Your task to perform on an android device: install app "Spotify" Image 0: 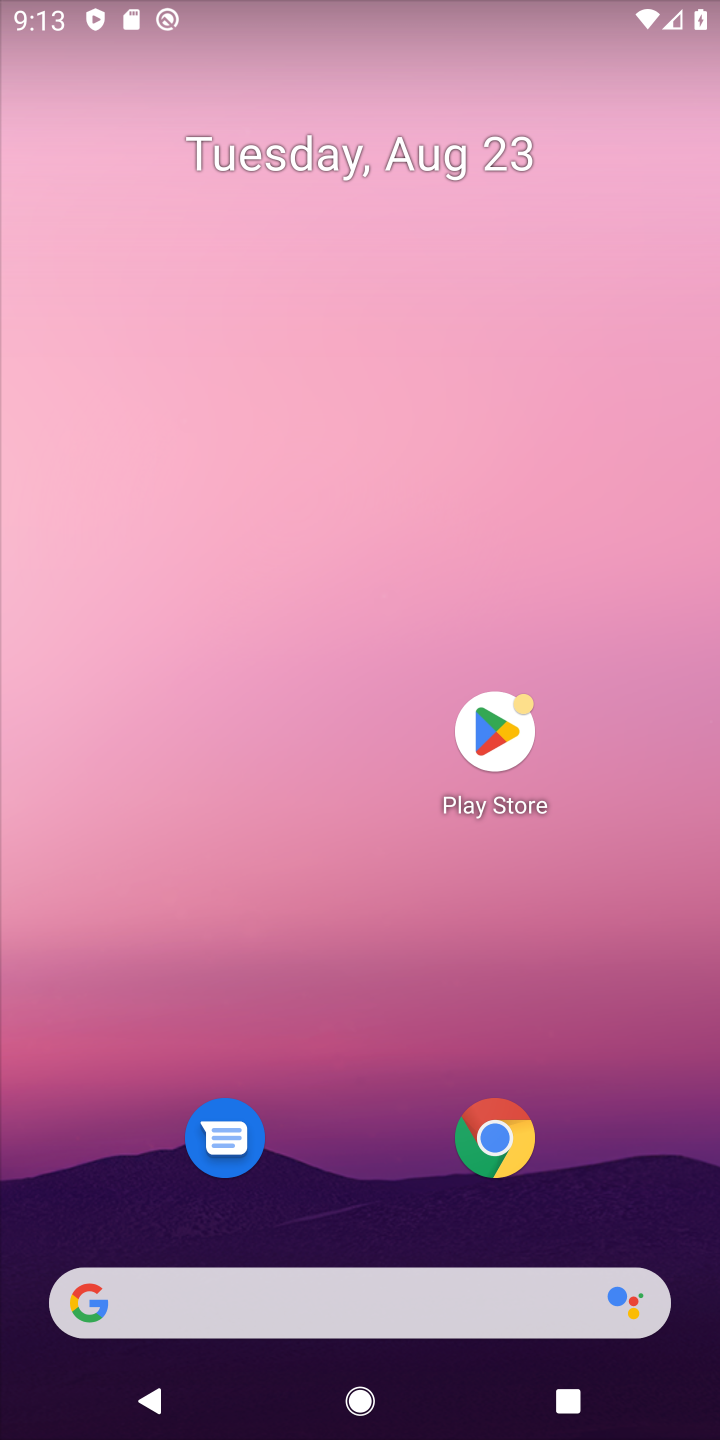
Step 0: press home button
Your task to perform on an android device: install app "Spotify" Image 1: 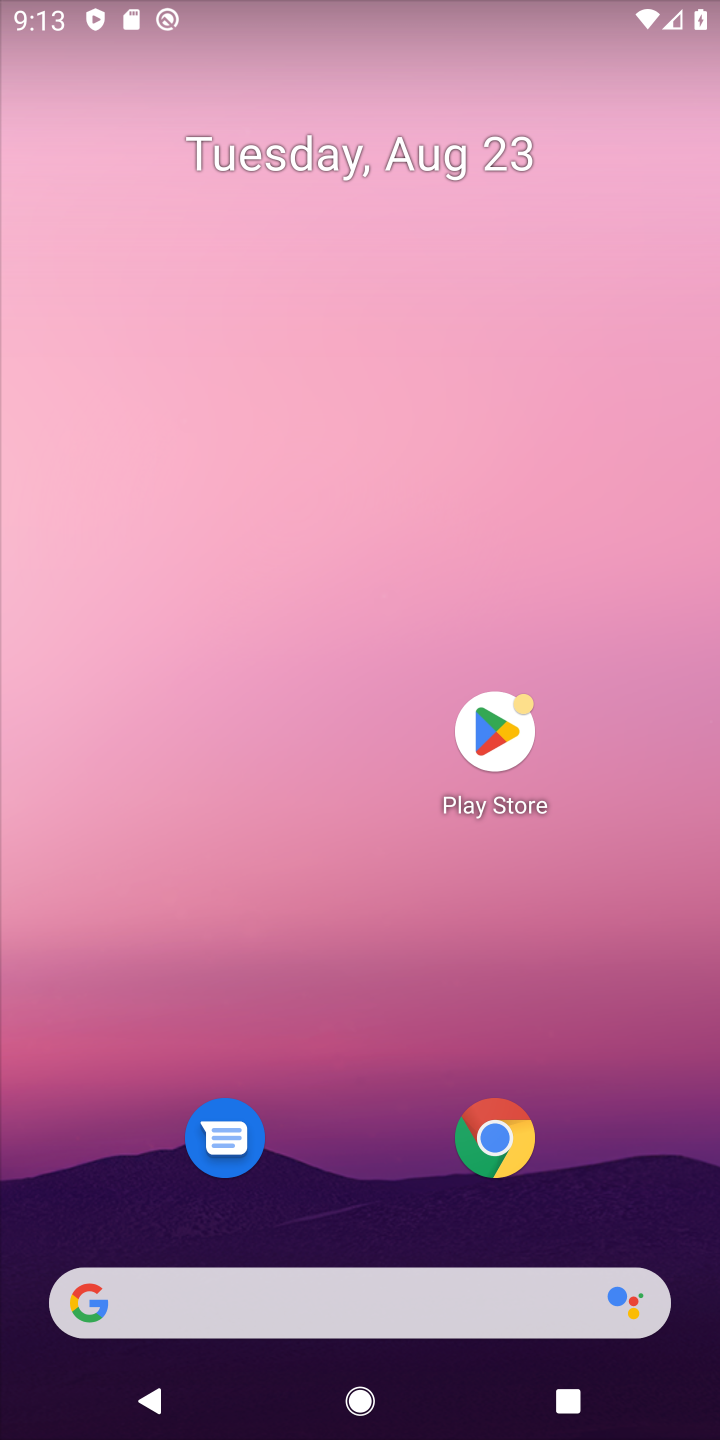
Step 1: click (493, 737)
Your task to perform on an android device: install app "Spotify" Image 2: 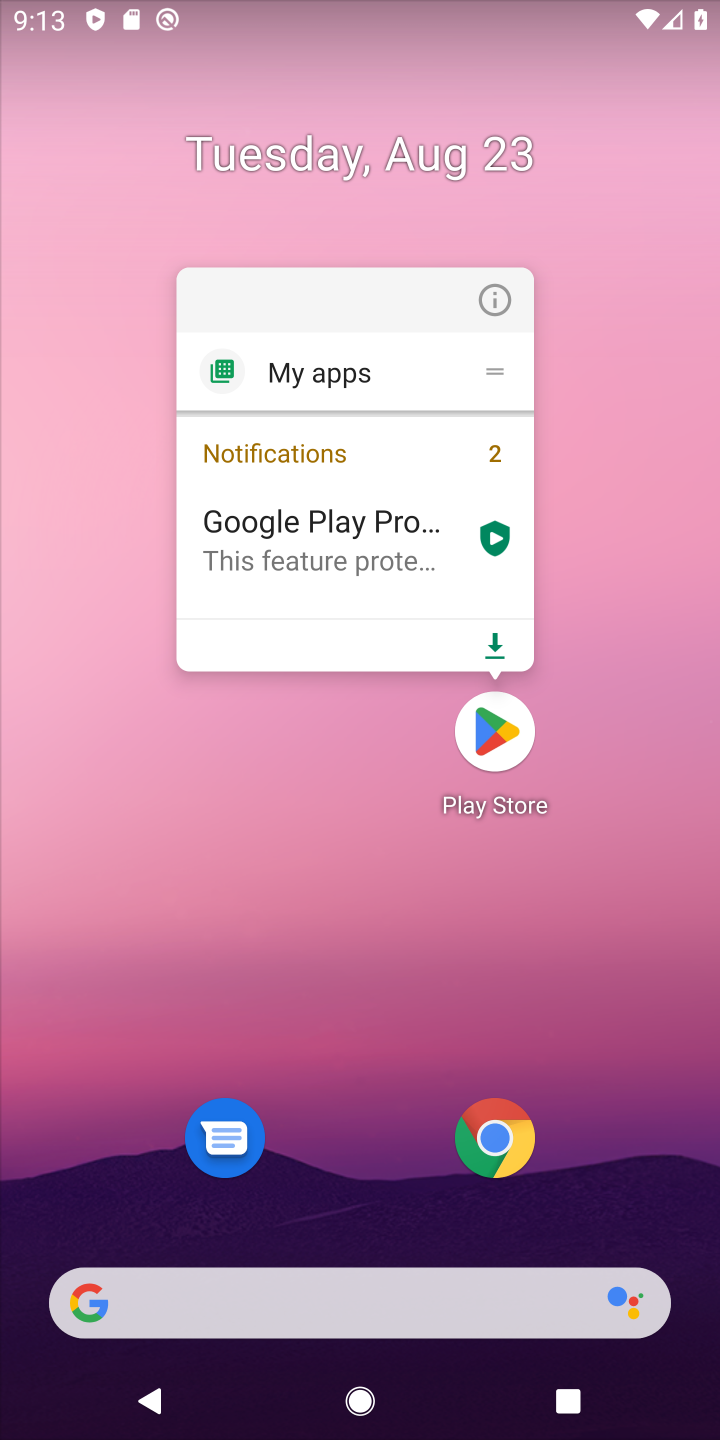
Step 2: click (493, 738)
Your task to perform on an android device: install app "Spotify" Image 3: 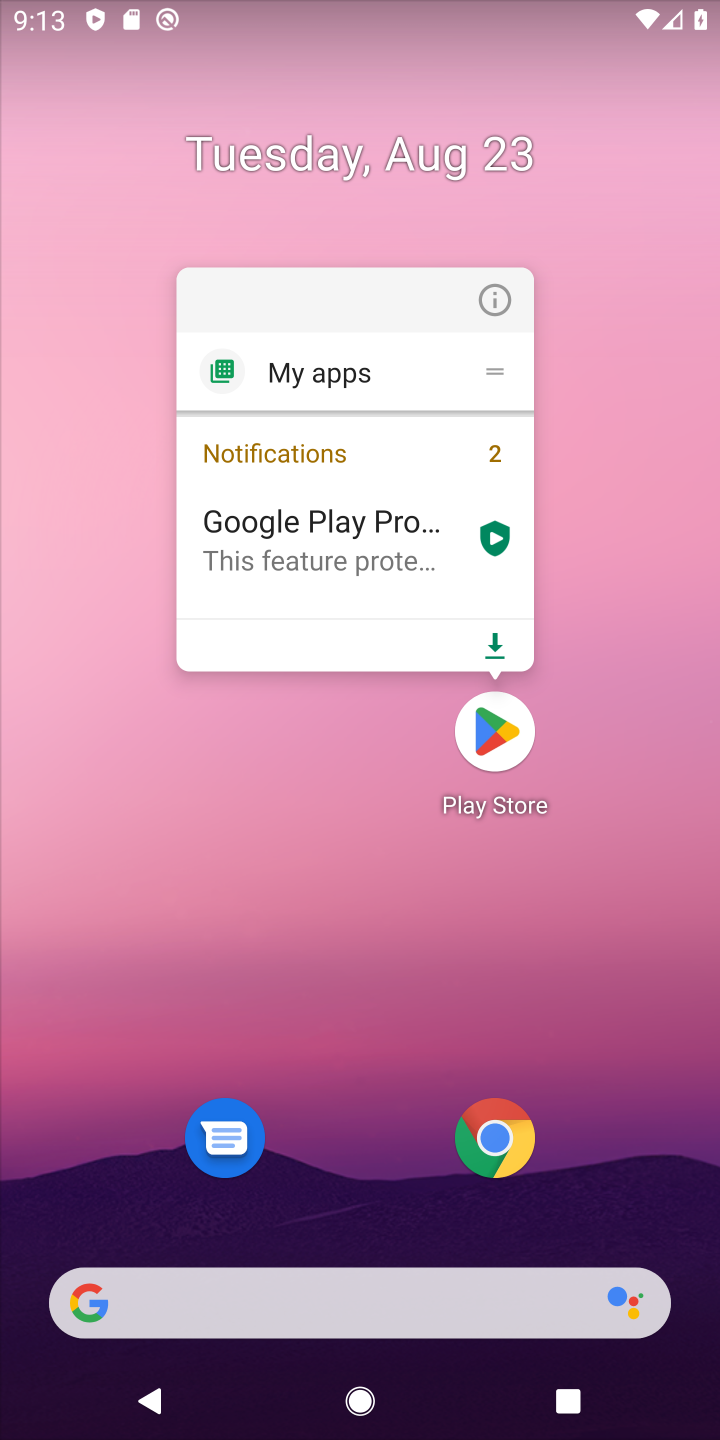
Step 3: click (493, 745)
Your task to perform on an android device: install app "Spotify" Image 4: 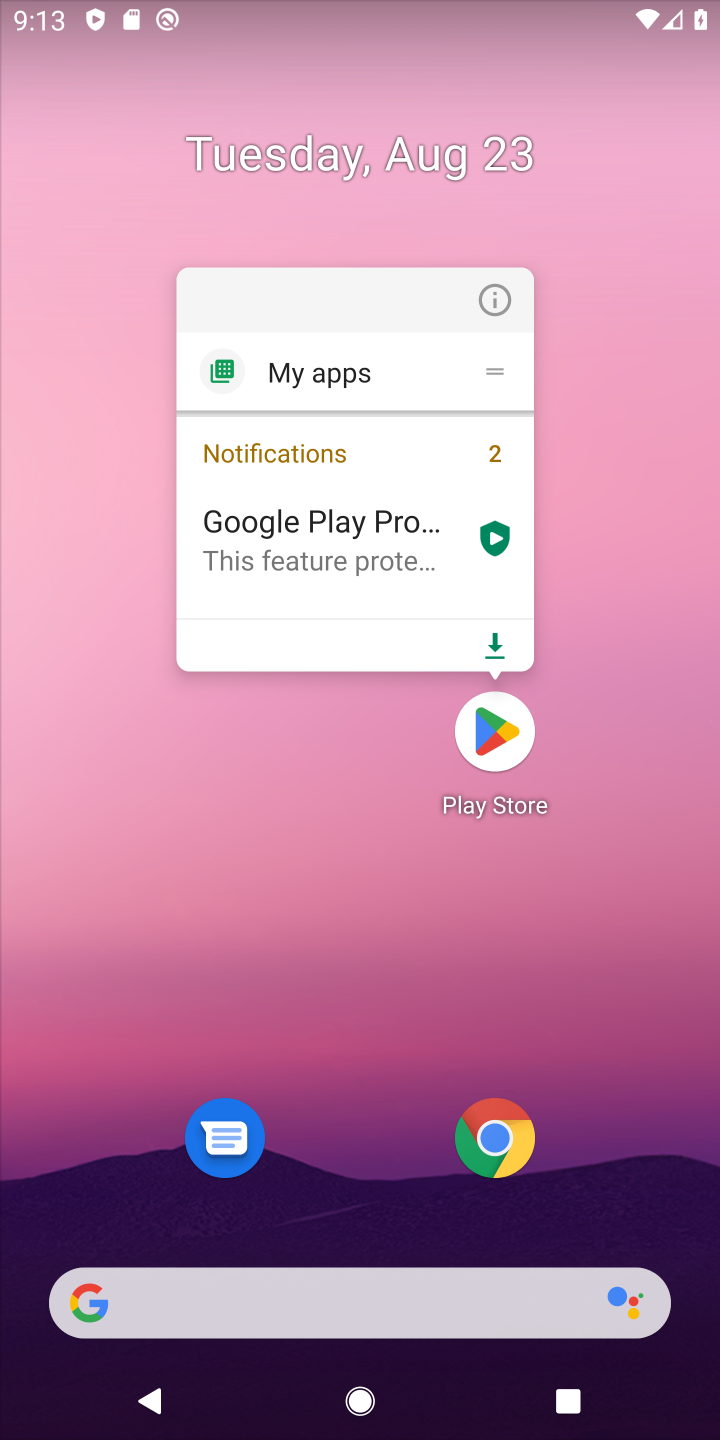
Step 4: click (493, 747)
Your task to perform on an android device: install app "Spotify" Image 5: 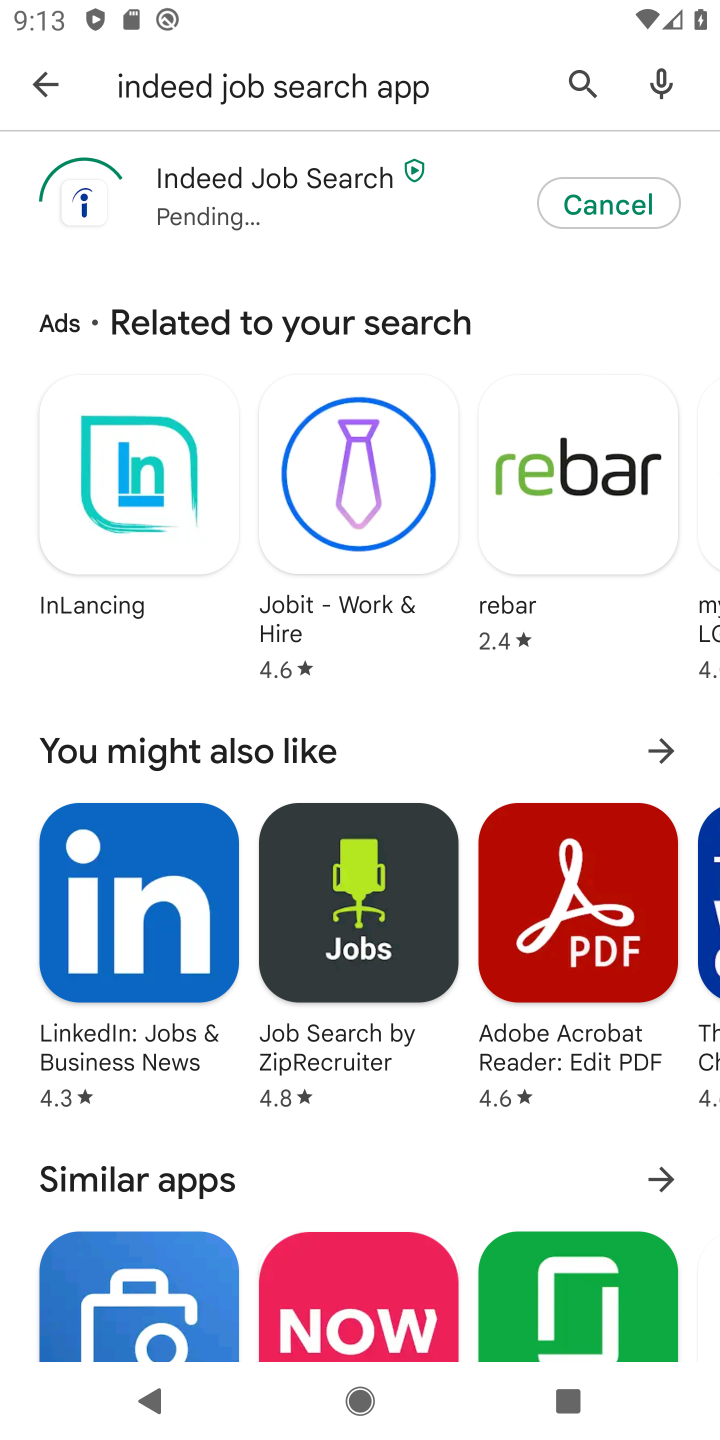
Step 5: click (595, 61)
Your task to perform on an android device: install app "Spotify" Image 6: 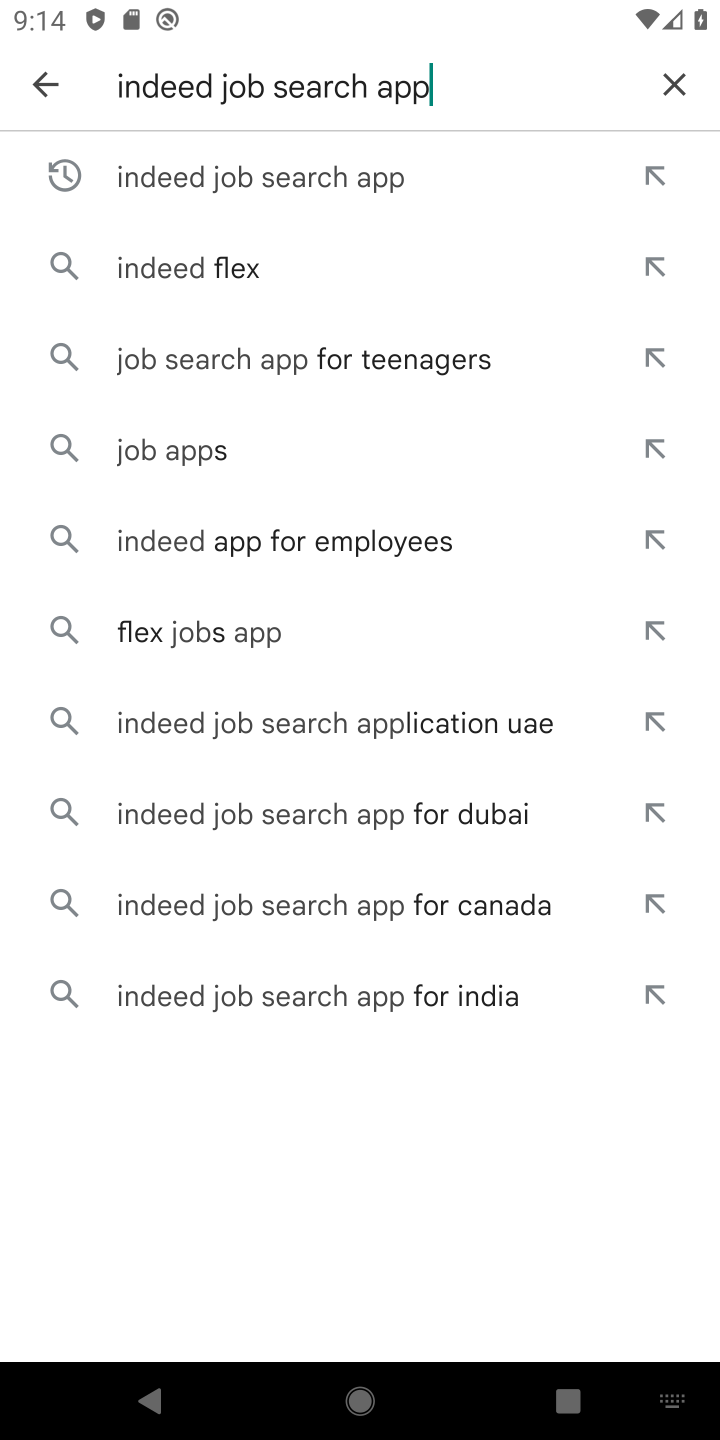
Step 6: click (664, 73)
Your task to perform on an android device: install app "Spotify" Image 7: 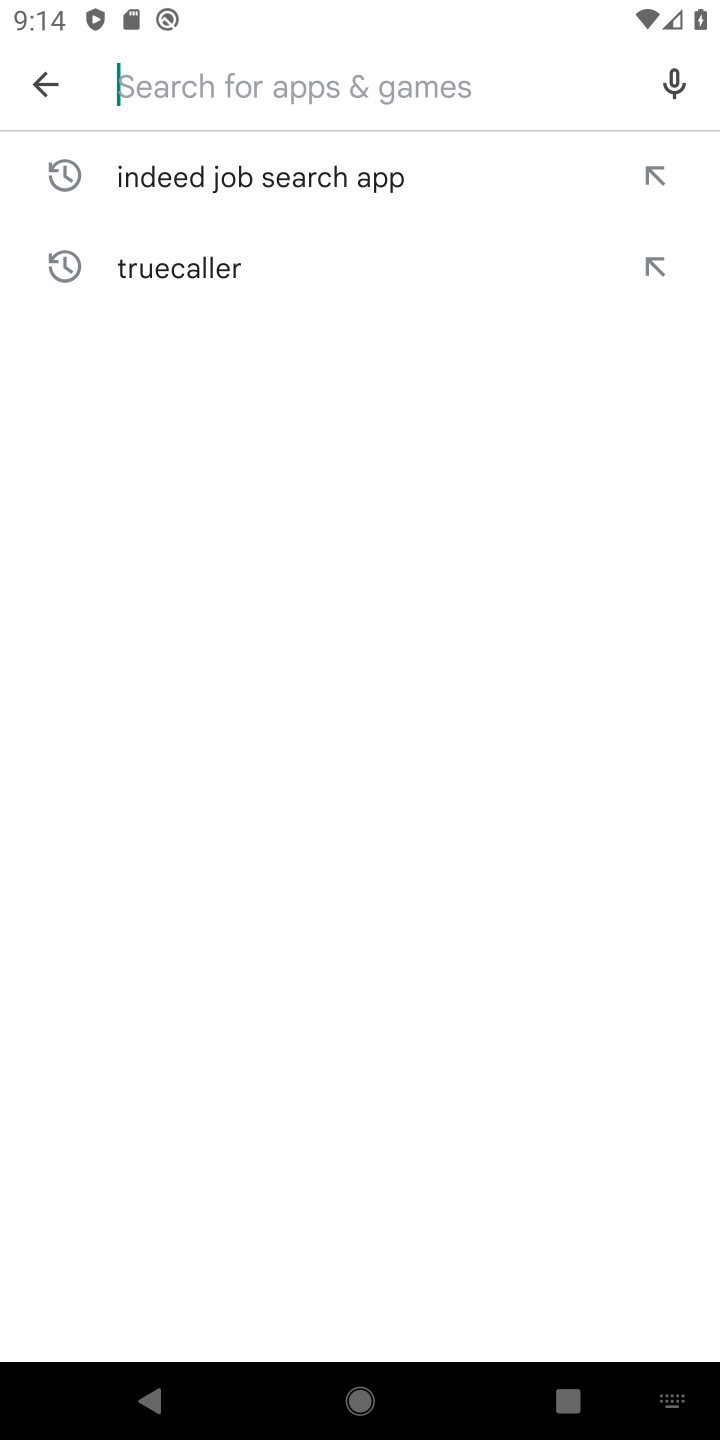
Step 7: type "Spotify"
Your task to perform on an android device: install app "Spotify" Image 8: 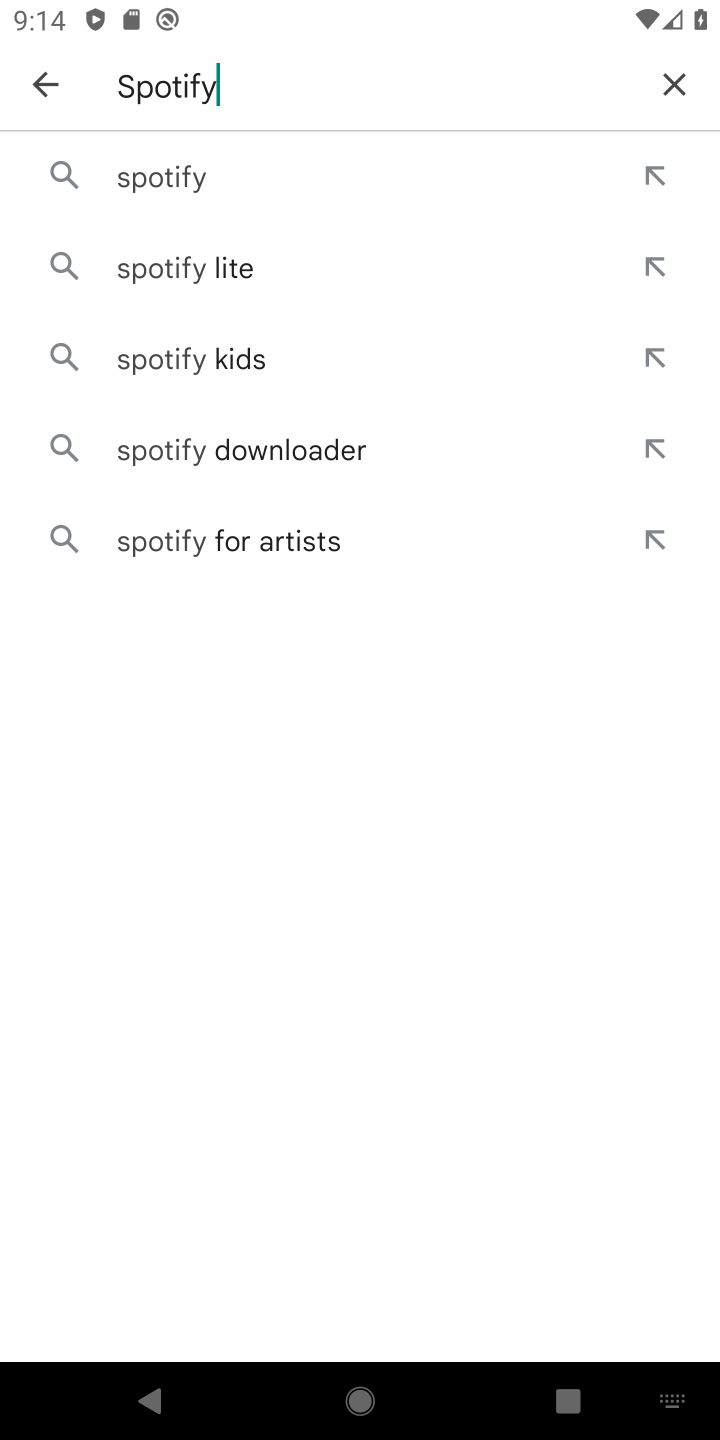
Step 8: click (201, 177)
Your task to perform on an android device: install app "Spotify" Image 9: 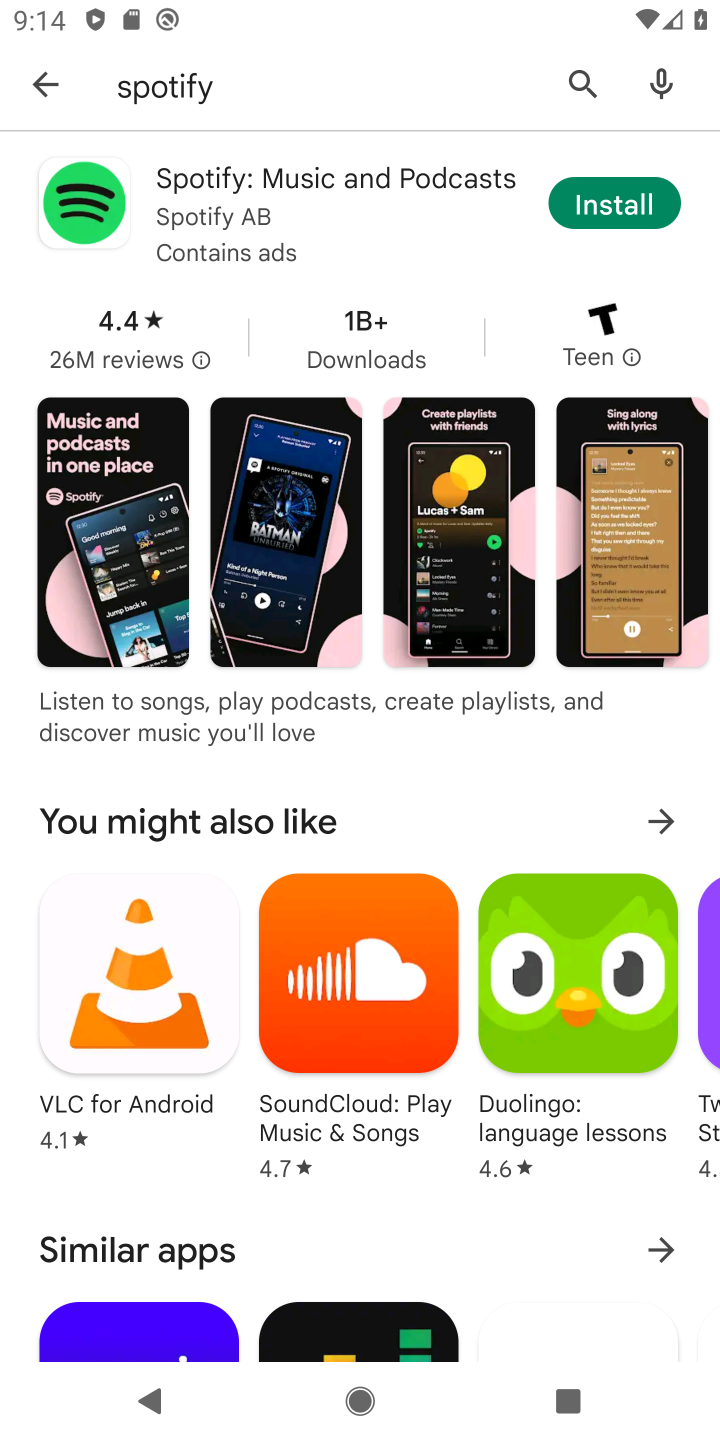
Step 9: click (649, 206)
Your task to perform on an android device: install app "Spotify" Image 10: 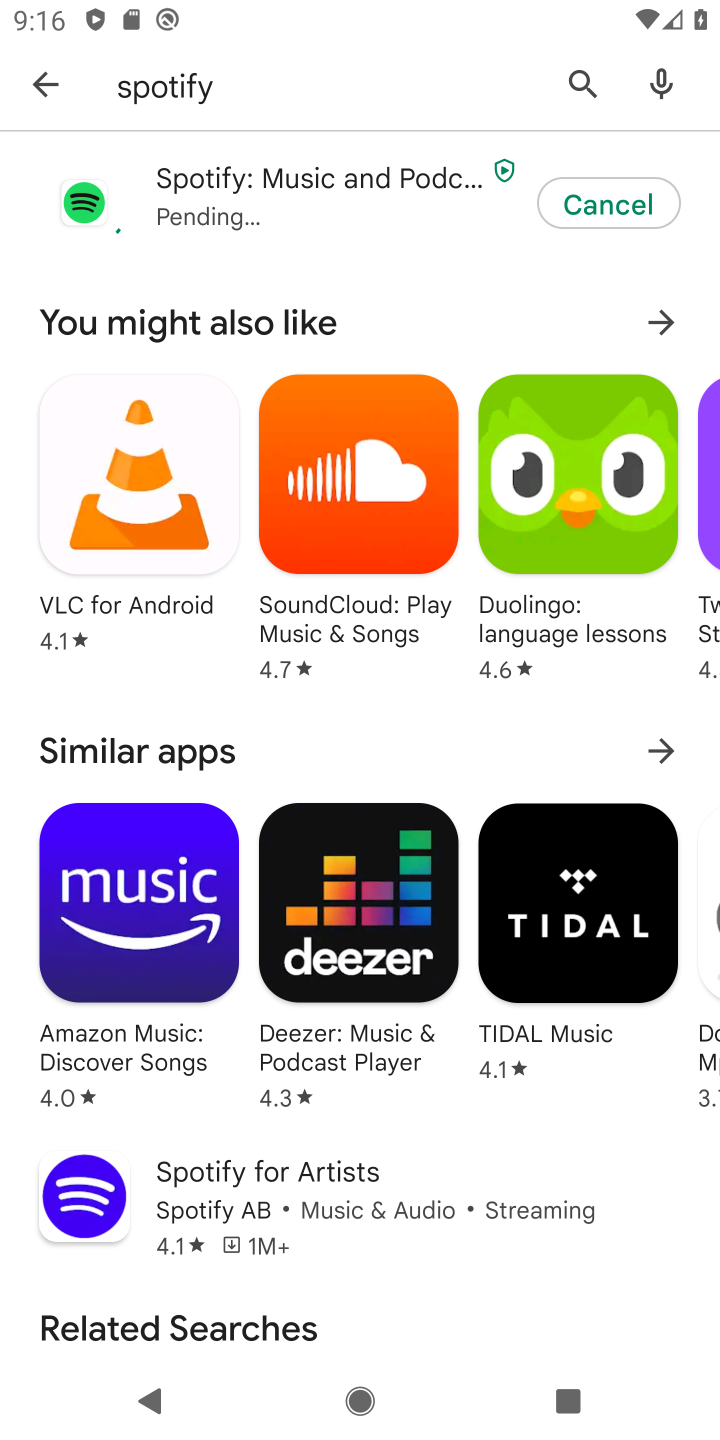
Step 10: task complete